Your task to perform on an android device: turn off notifications settings in the gmail app Image 0: 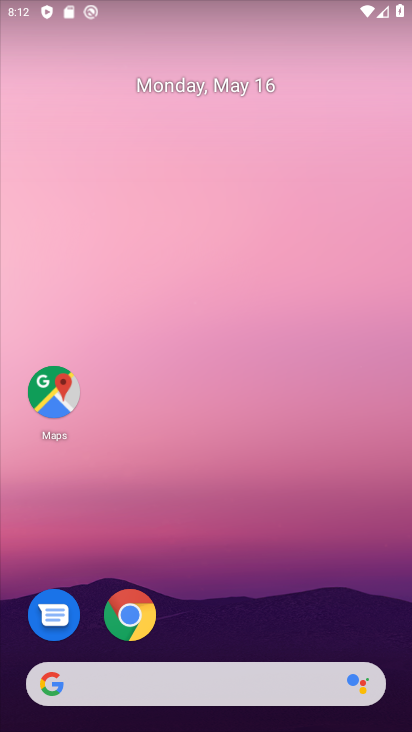
Step 0: drag from (241, 705) to (236, 15)
Your task to perform on an android device: turn off notifications settings in the gmail app Image 1: 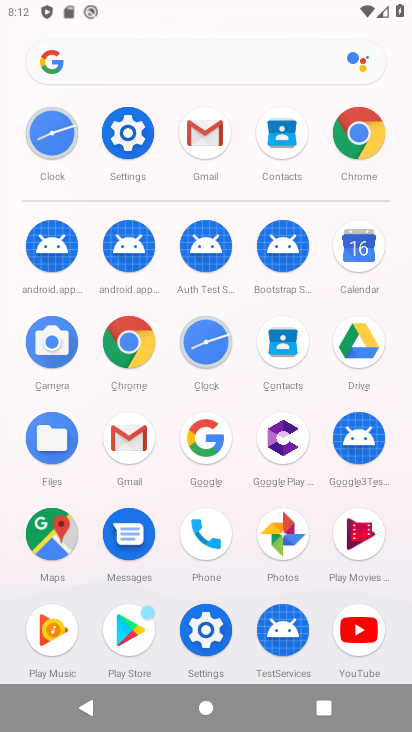
Step 1: click (130, 461)
Your task to perform on an android device: turn off notifications settings in the gmail app Image 2: 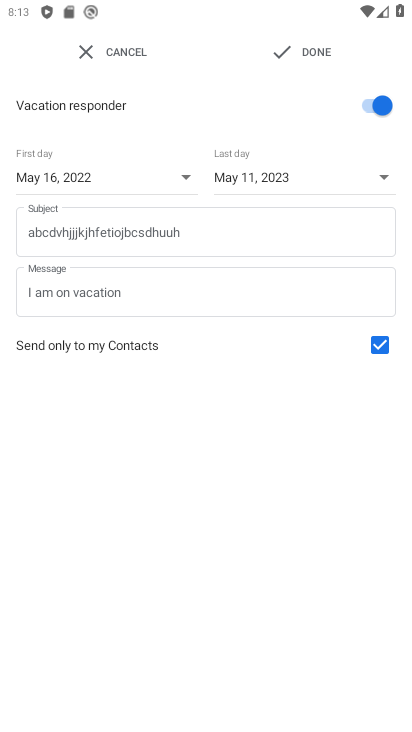
Step 2: press back button
Your task to perform on an android device: turn off notifications settings in the gmail app Image 3: 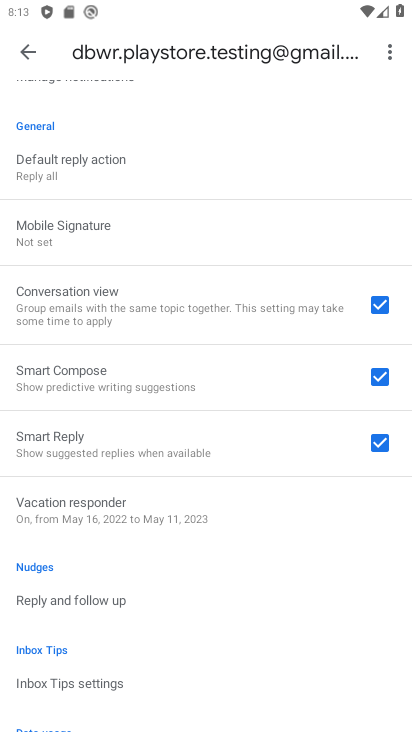
Step 3: click (24, 59)
Your task to perform on an android device: turn off notifications settings in the gmail app Image 4: 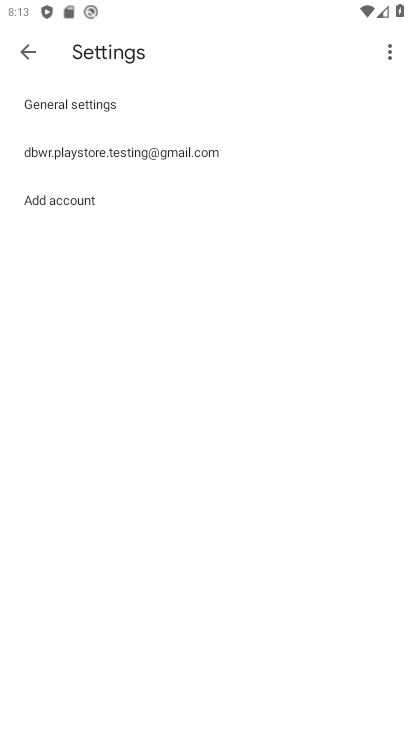
Step 4: click (120, 102)
Your task to perform on an android device: turn off notifications settings in the gmail app Image 5: 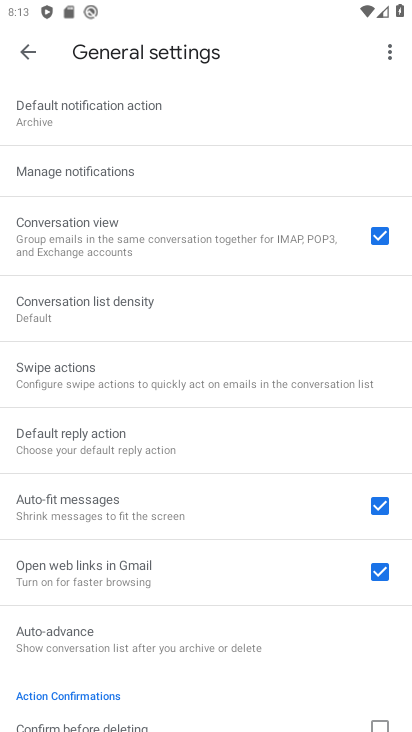
Step 5: click (105, 172)
Your task to perform on an android device: turn off notifications settings in the gmail app Image 6: 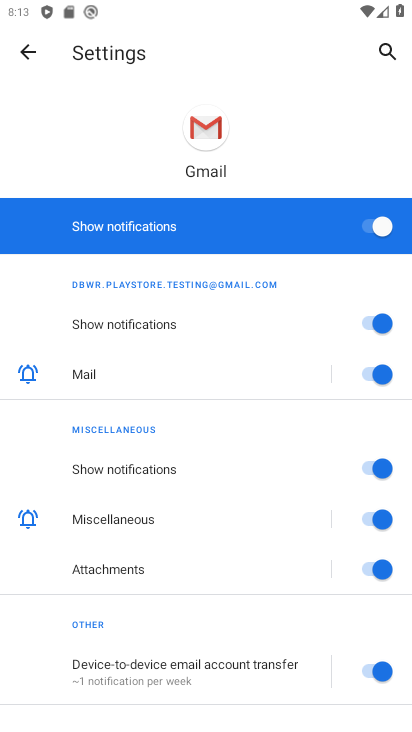
Step 6: click (365, 225)
Your task to perform on an android device: turn off notifications settings in the gmail app Image 7: 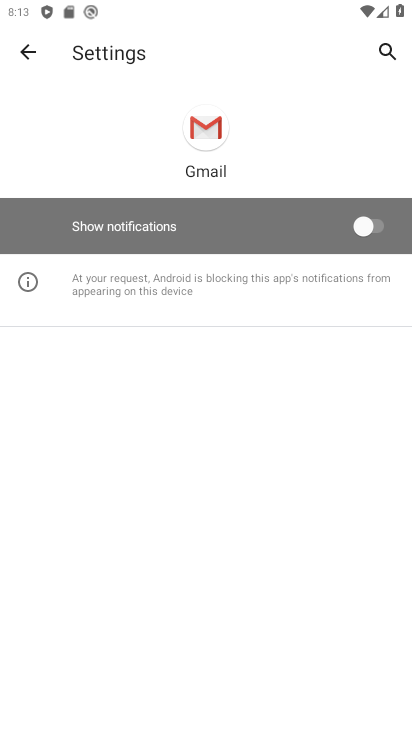
Step 7: task complete